Your task to perform on an android device: open app "Lyft - Rideshare, Bikes, Scooters & Transit" Image 0: 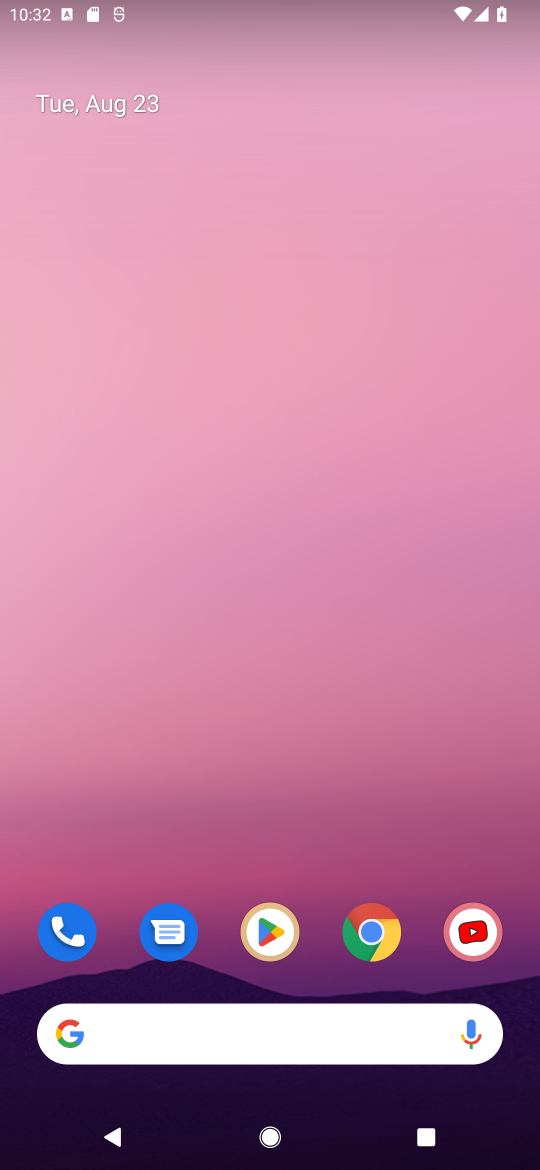
Step 0: click (277, 937)
Your task to perform on an android device: open app "Lyft - Rideshare, Bikes, Scooters & Transit" Image 1: 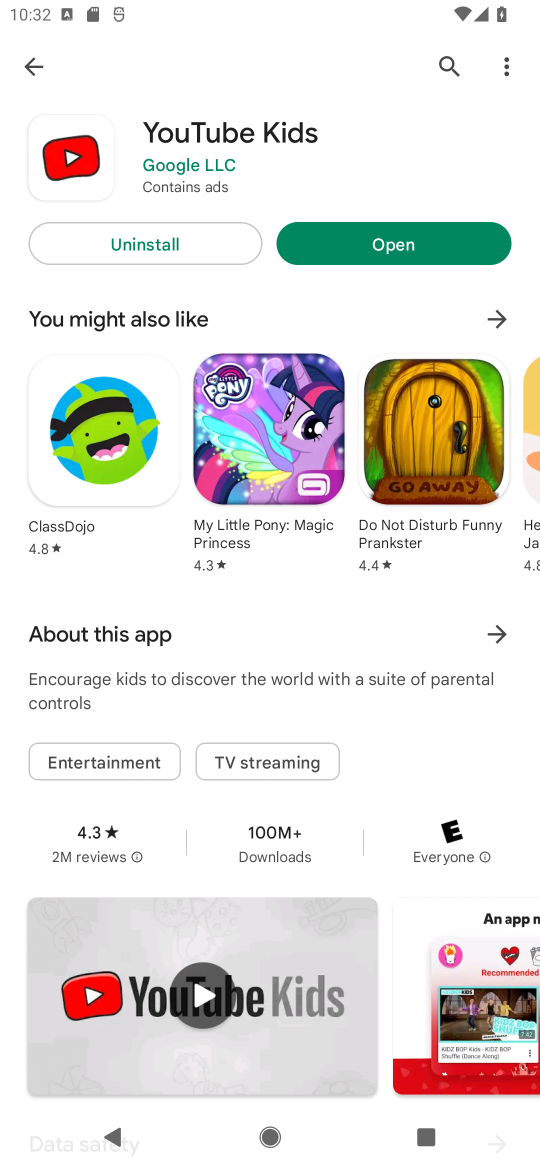
Step 1: click (453, 50)
Your task to perform on an android device: open app "Lyft - Rideshare, Bikes, Scooters & Transit" Image 2: 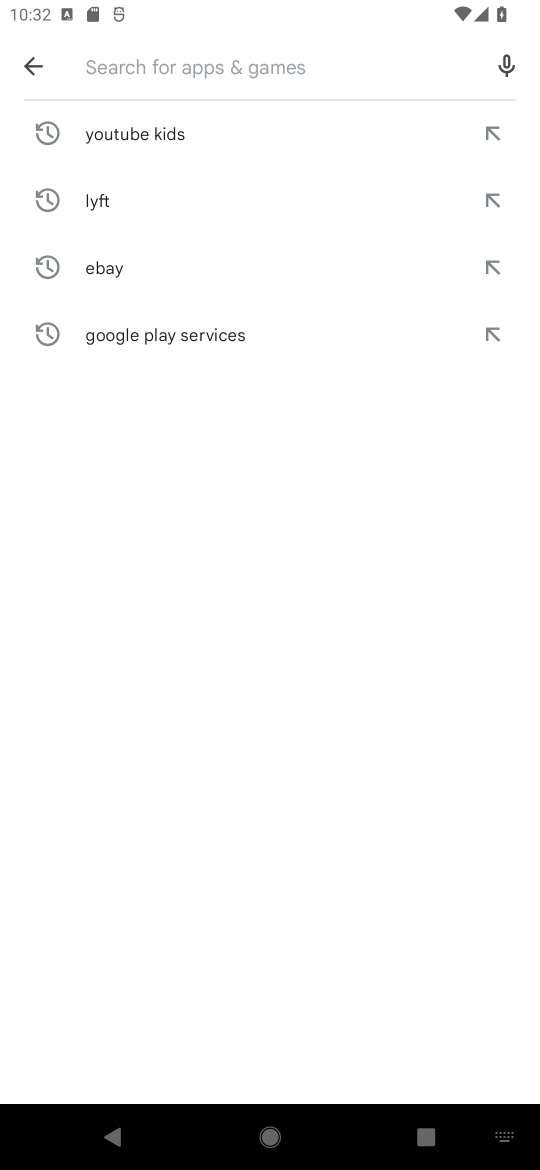
Step 2: click (183, 79)
Your task to perform on an android device: open app "Lyft - Rideshare, Bikes, Scooters & Transit" Image 3: 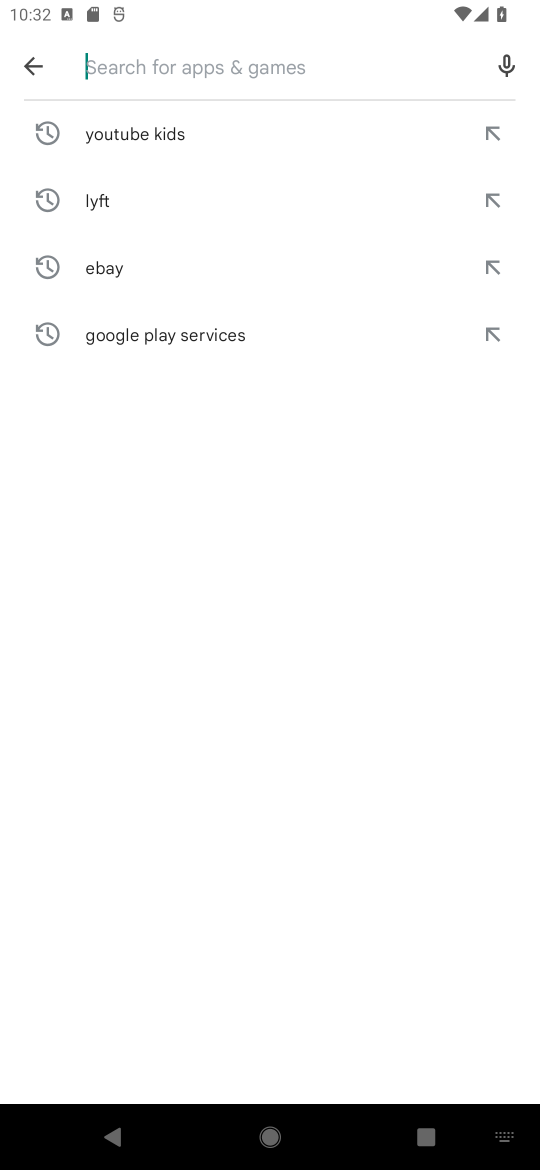
Step 3: type "Lyft "
Your task to perform on an android device: open app "Lyft - Rideshare, Bikes, Scooters & Transit" Image 4: 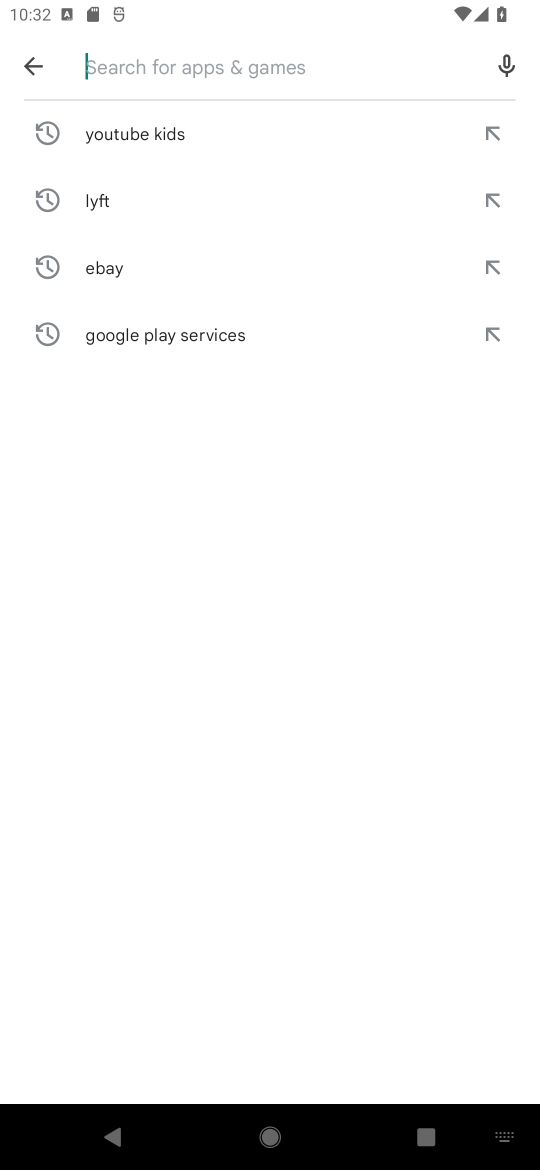
Step 4: click (338, 738)
Your task to perform on an android device: open app "Lyft - Rideshare, Bikes, Scooters & Transit" Image 5: 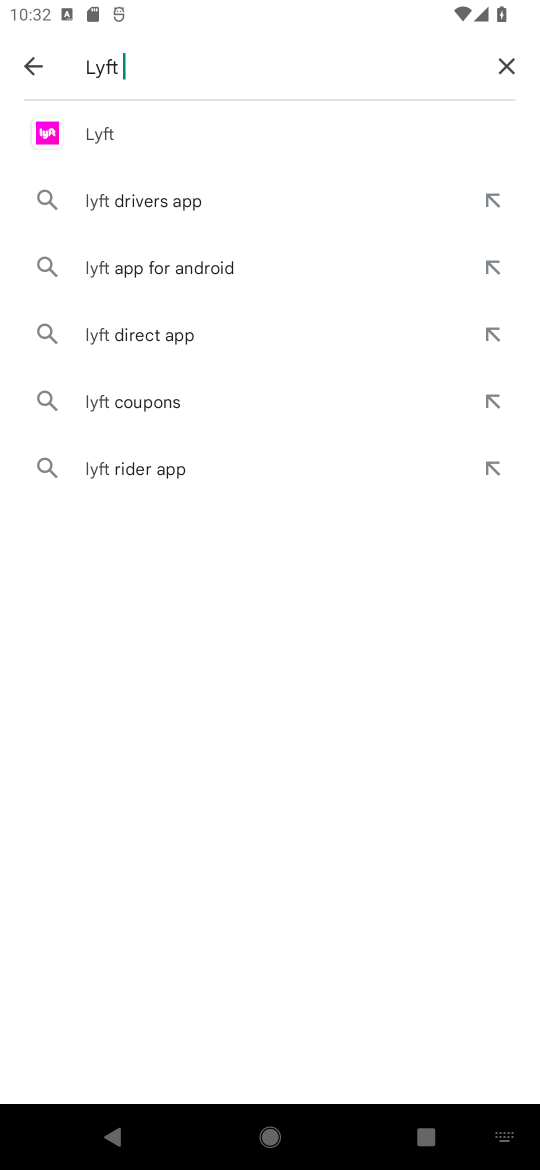
Step 5: click (165, 120)
Your task to perform on an android device: open app "Lyft - Rideshare, Bikes, Scooters & Transit" Image 6: 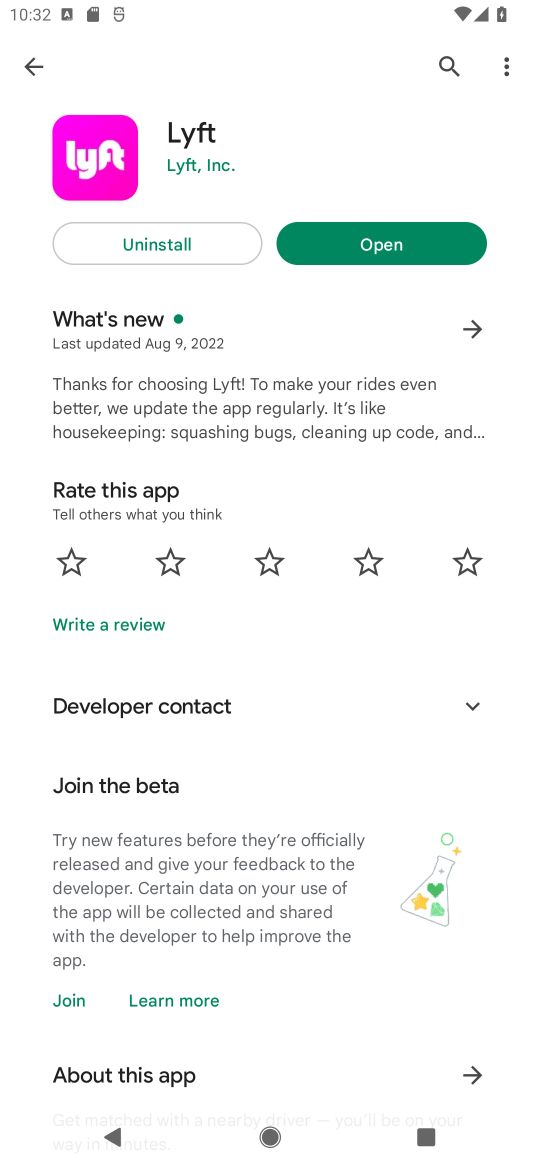
Step 6: click (414, 241)
Your task to perform on an android device: open app "Lyft - Rideshare, Bikes, Scooters & Transit" Image 7: 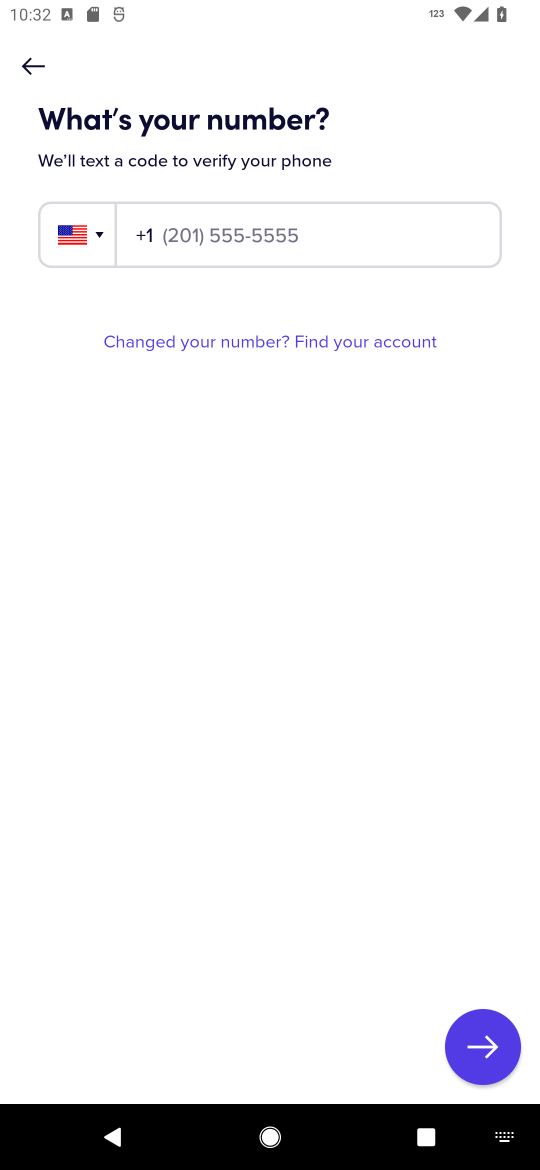
Step 7: task complete